Your task to perform on an android device: find snoozed emails in the gmail app Image 0: 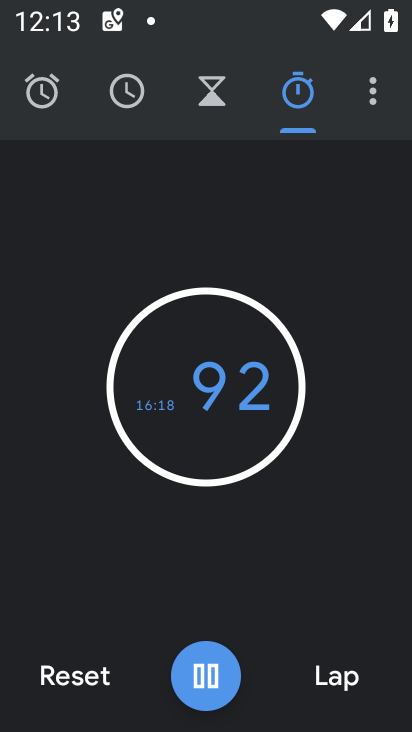
Step 0: press home button
Your task to perform on an android device: find snoozed emails in the gmail app Image 1: 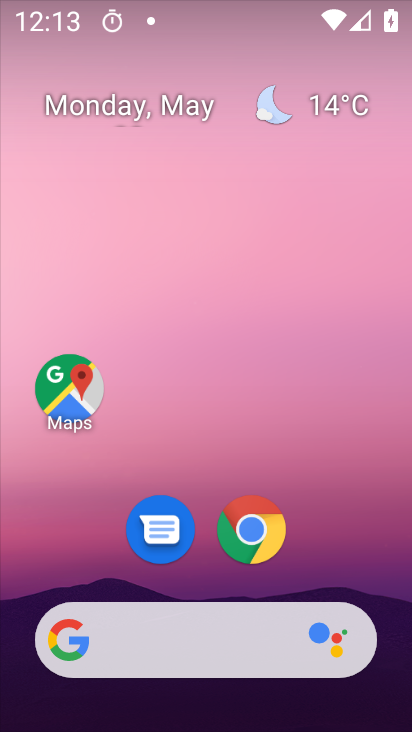
Step 1: drag from (371, 581) to (377, 249)
Your task to perform on an android device: find snoozed emails in the gmail app Image 2: 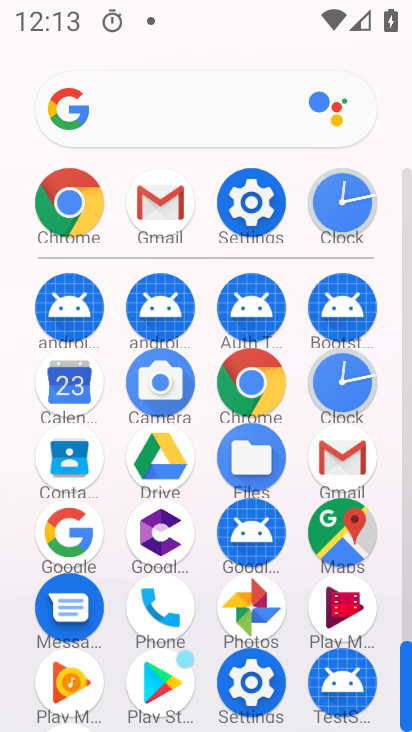
Step 2: click (357, 472)
Your task to perform on an android device: find snoozed emails in the gmail app Image 3: 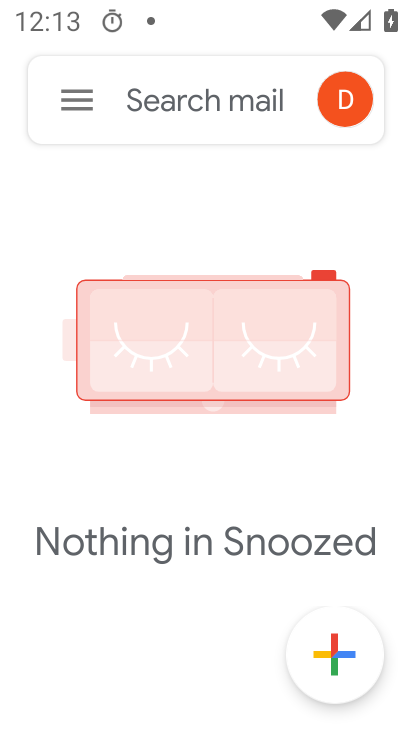
Step 3: task complete